Your task to perform on an android device: open the mobile data screen to see how much data has been used Image 0: 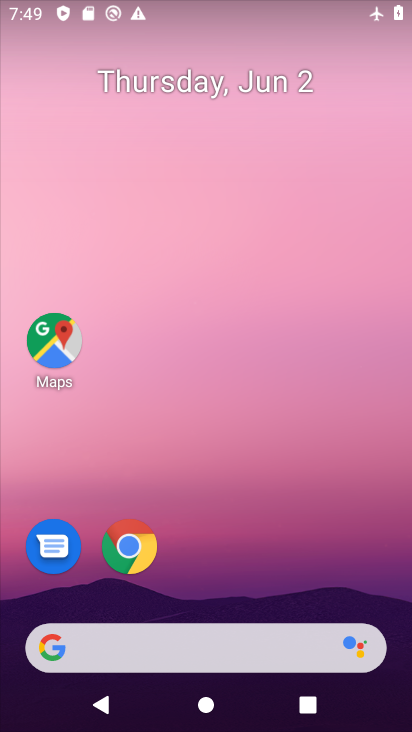
Step 0: drag from (260, 688) to (172, 132)
Your task to perform on an android device: open the mobile data screen to see how much data has been used Image 1: 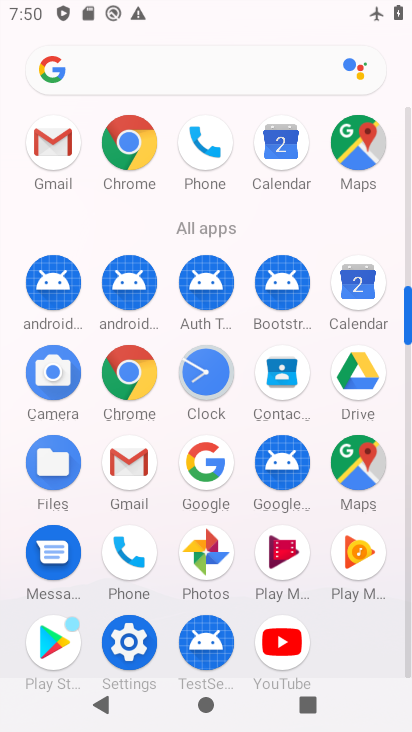
Step 1: click (128, 633)
Your task to perform on an android device: open the mobile data screen to see how much data has been used Image 2: 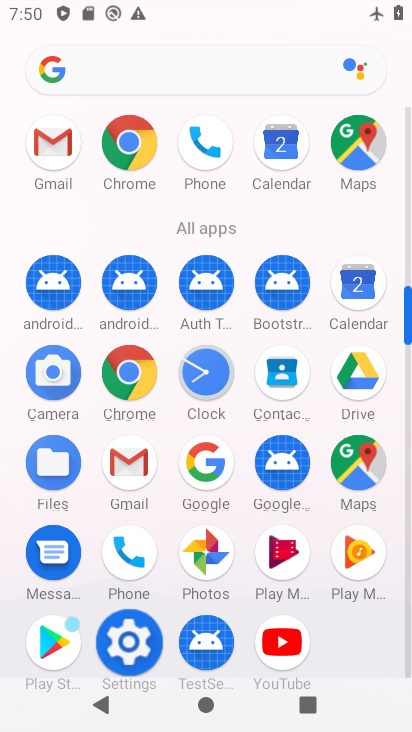
Step 2: click (128, 633)
Your task to perform on an android device: open the mobile data screen to see how much data has been used Image 3: 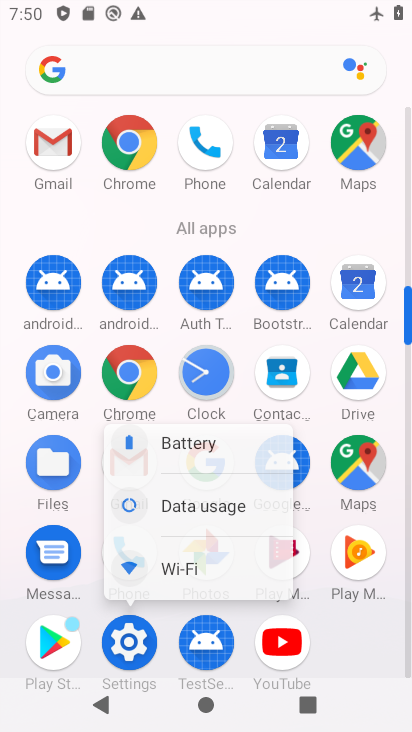
Step 3: click (128, 633)
Your task to perform on an android device: open the mobile data screen to see how much data has been used Image 4: 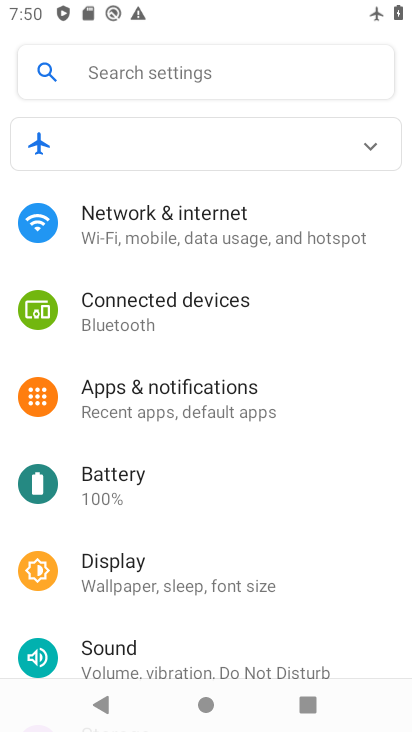
Step 4: click (175, 236)
Your task to perform on an android device: open the mobile data screen to see how much data has been used Image 5: 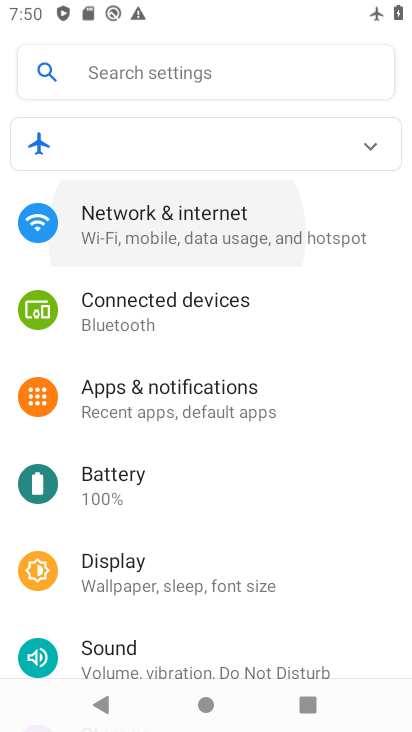
Step 5: click (175, 236)
Your task to perform on an android device: open the mobile data screen to see how much data has been used Image 6: 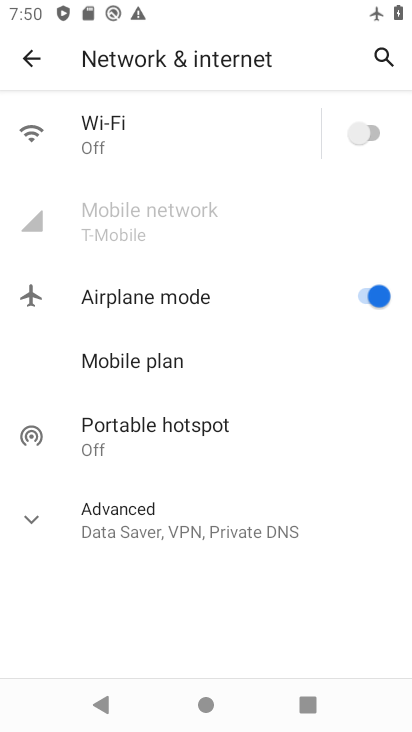
Step 6: click (374, 291)
Your task to perform on an android device: open the mobile data screen to see how much data has been used Image 7: 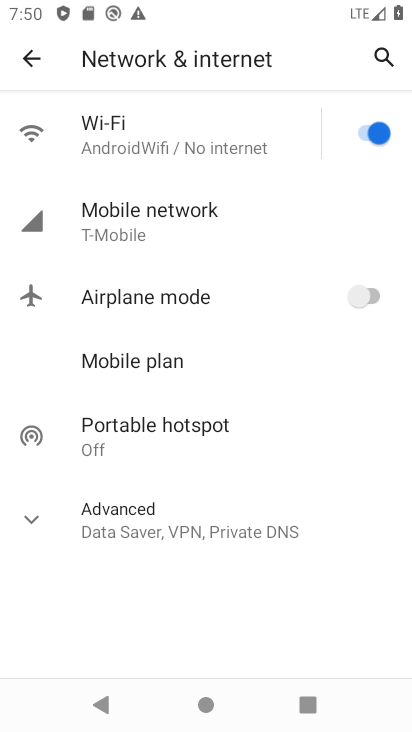
Step 7: task complete